Your task to perform on an android device: Turn on the flashlight Image 0: 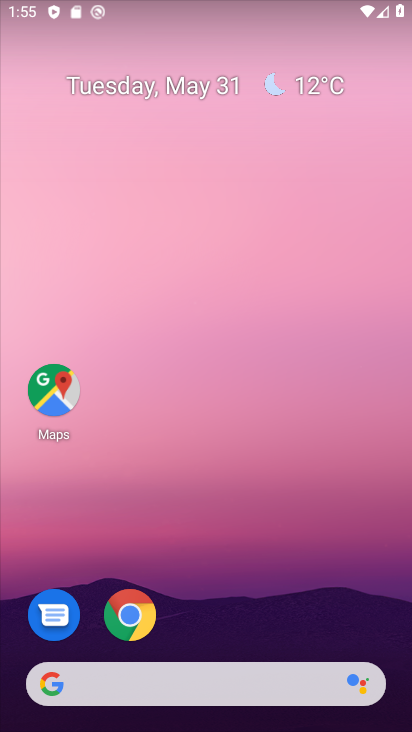
Step 0: drag from (332, 25) to (289, 587)
Your task to perform on an android device: Turn on the flashlight Image 1: 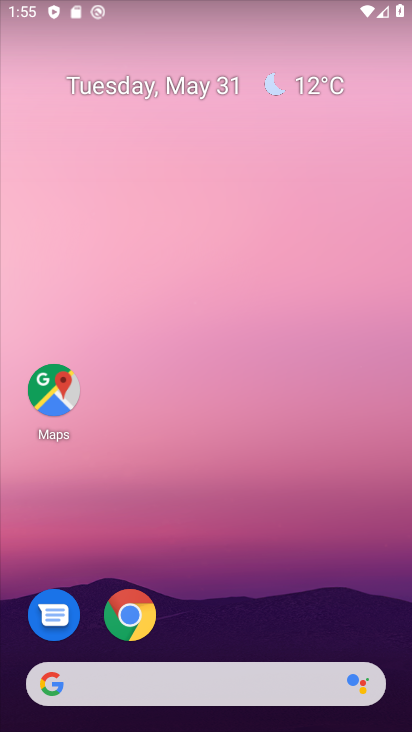
Step 1: task complete